Your task to perform on an android device: Check the news Image 0: 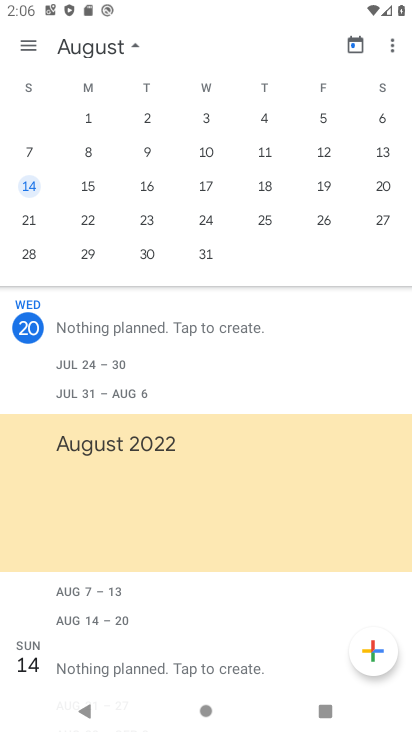
Step 0: press home button
Your task to perform on an android device: Check the news Image 1: 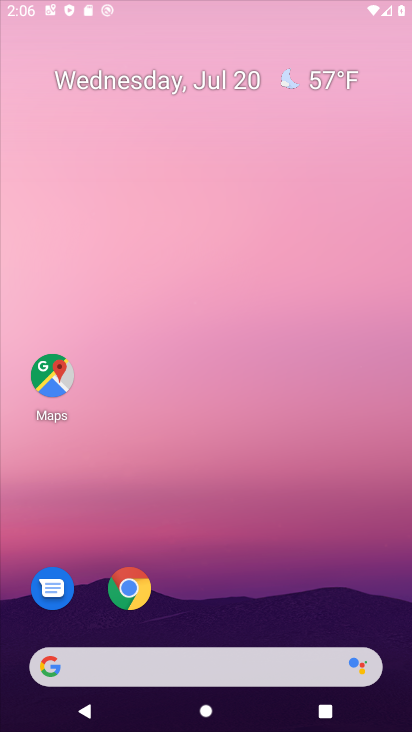
Step 1: drag from (310, 609) to (218, 2)
Your task to perform on an android device: Check the news Image 2: 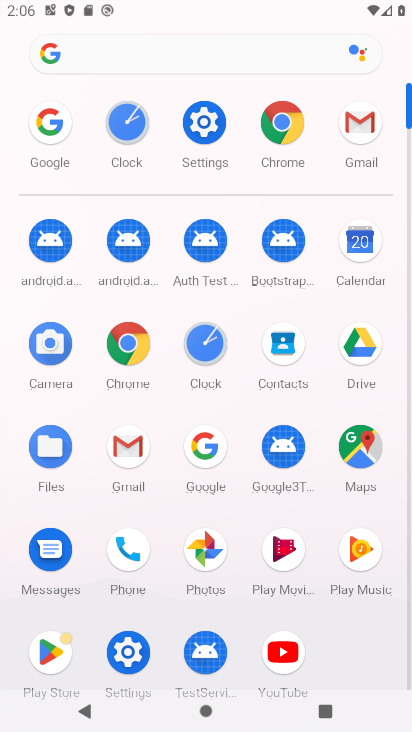
Step 2: click (205, 447)
Your task to perform on an android device: Check the news Image 3: 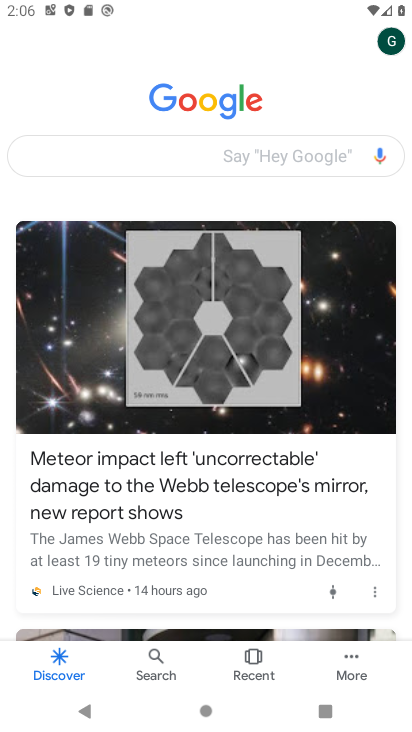
Step 3: click (191, 147)
Your task to perform on an android device: Check the news Image 4: 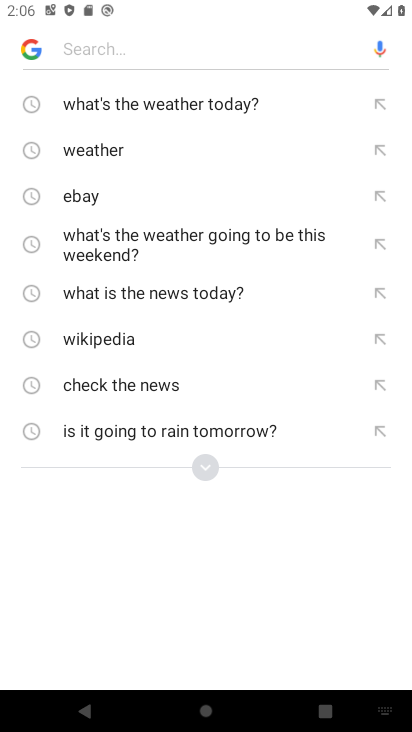
Step 4: click (121, 392)
Your task to perform on an android device: Check the news Image 5: 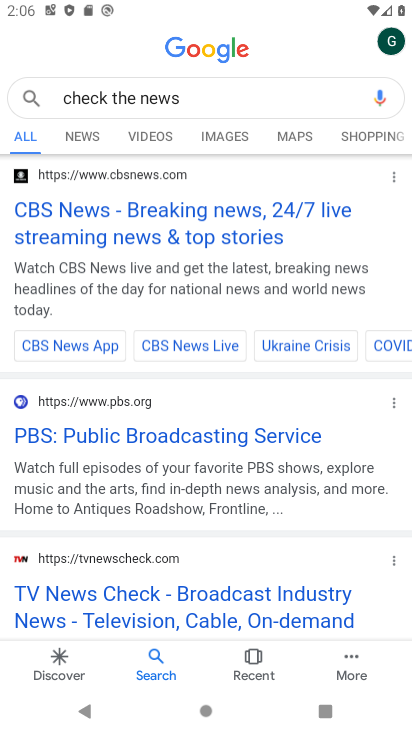
Step 5: task complete